Your task to perform on an android device: Show the shopping cart on amazon.com. Add jbl flip 4 to the cart on amazon.com, then select checkout. Image 0: 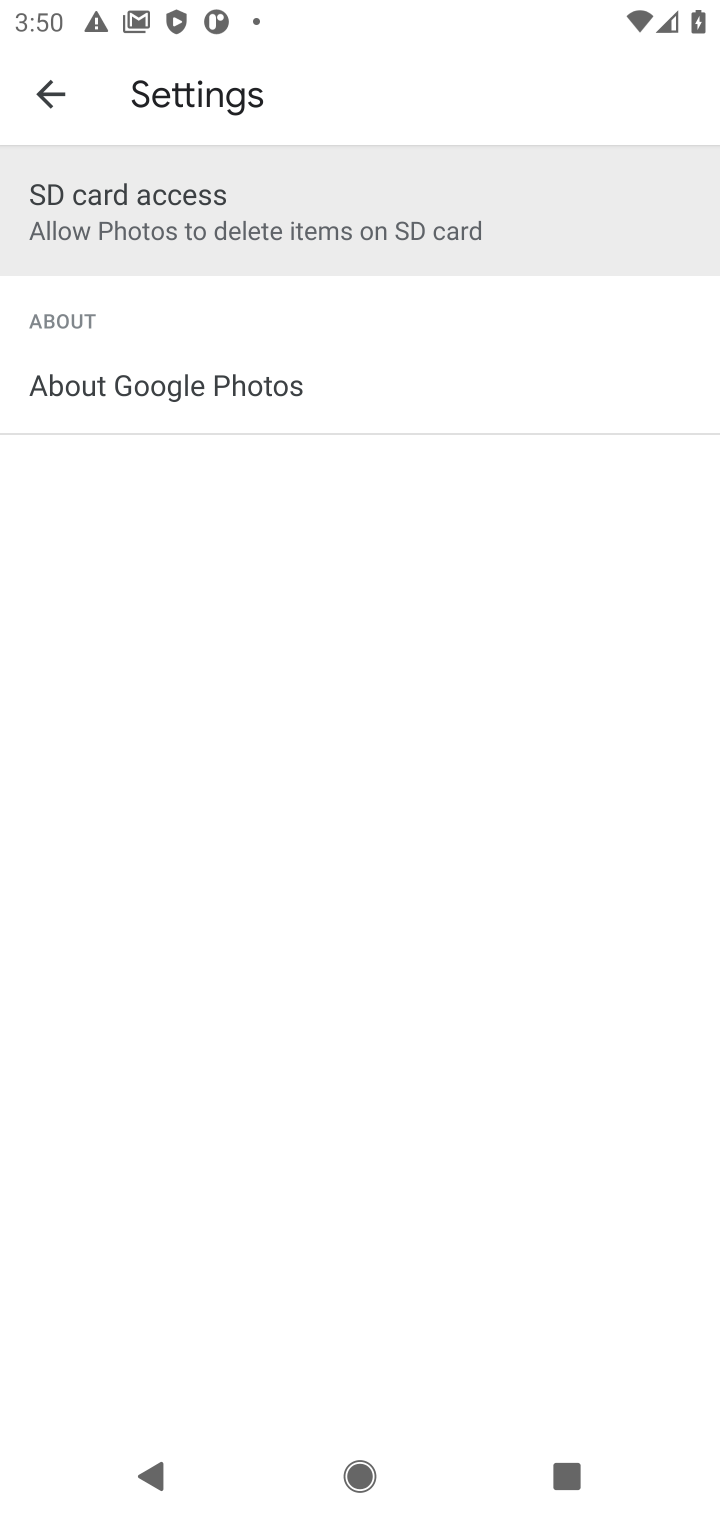
Step 0: press home button
Your task to perform on an android device: Show the shopping cart on amazon.com. Add jbl flip 4 to the cart on amazon.com, then select checkout. Image 1: 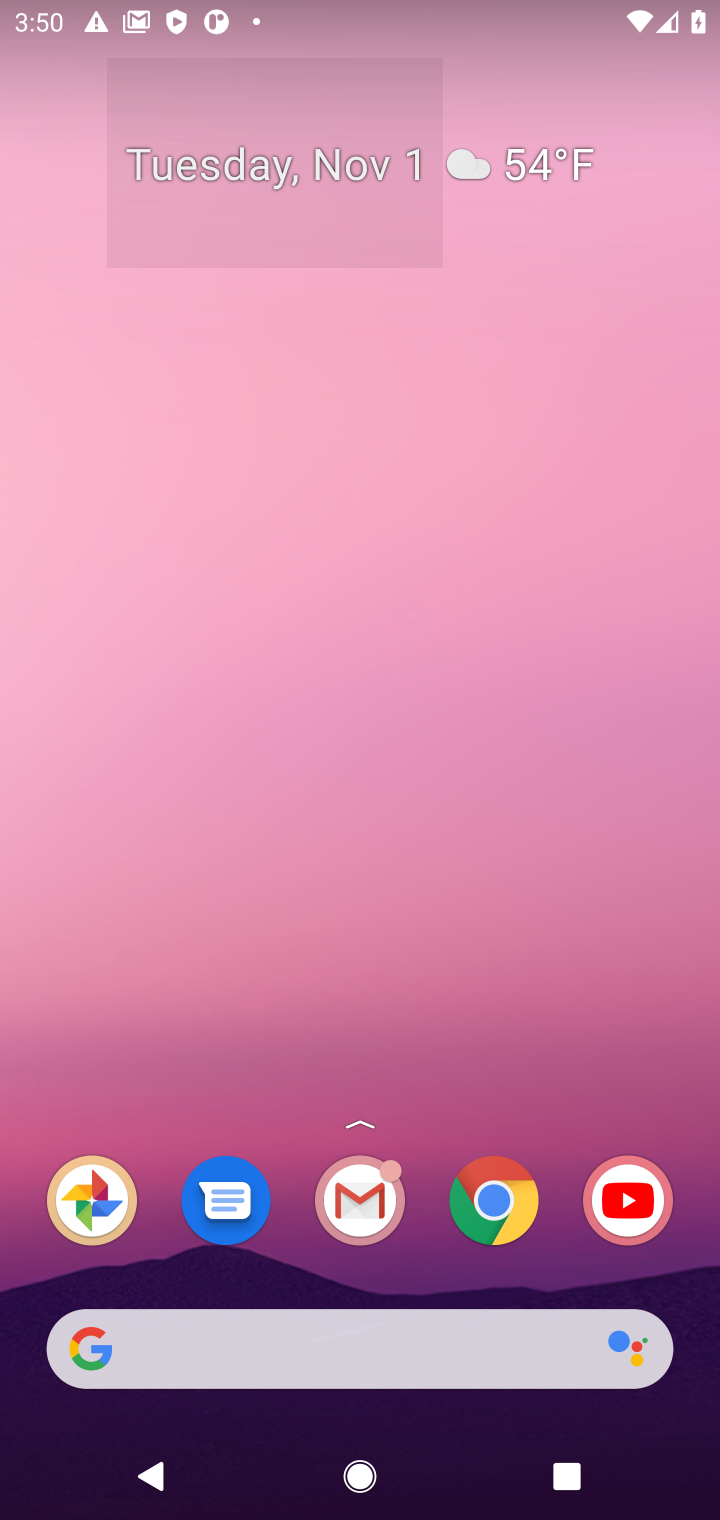
Step 1: click (94, 1352)
Your task to perform on an android device: Show the shopping cart on amazon.com. Add jbl flip 4 to the cart on amazon.com, then select checkout. Image 2: 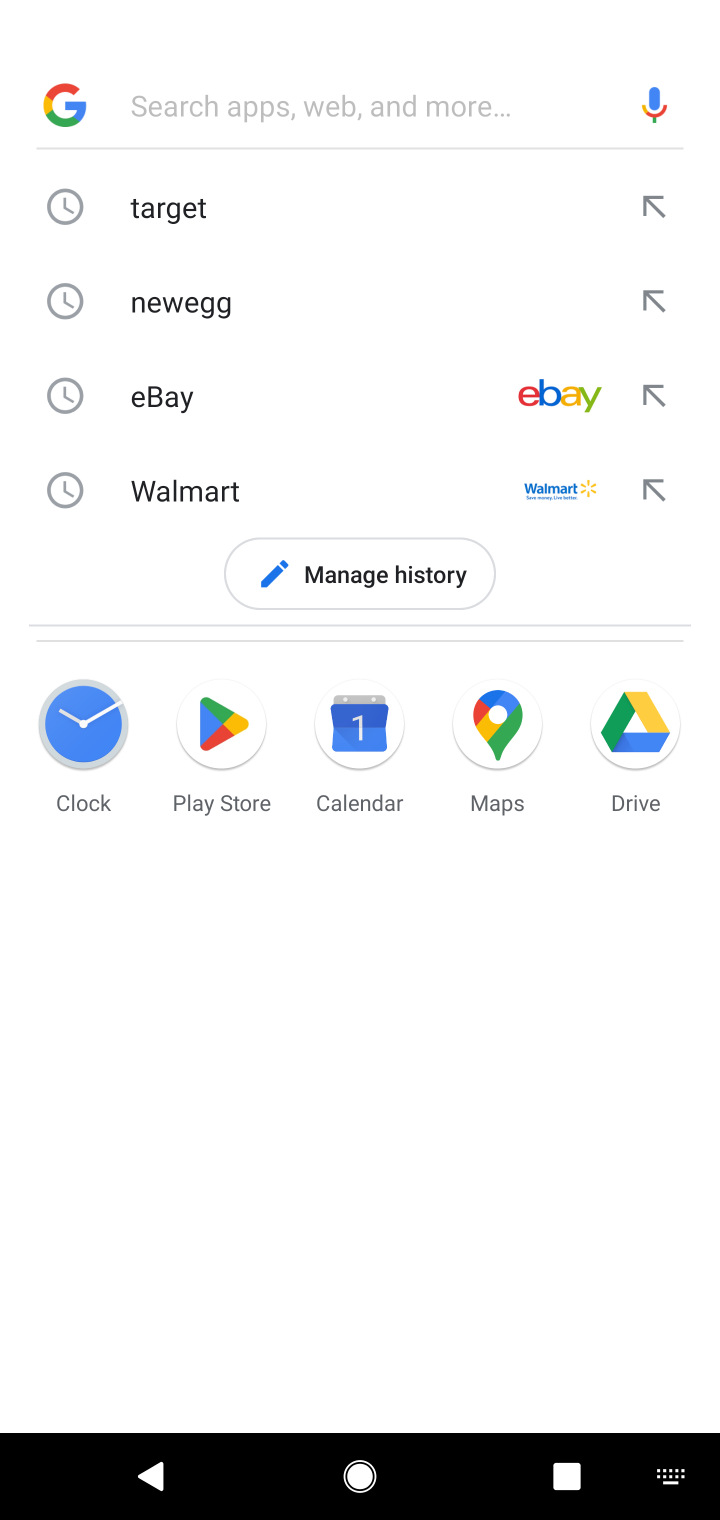
Step 2: click (423, 88)
Your task to perform on an android device: Show the shopping cart on amazon.com. Add jbl flip 4 to the cart on amazon.com, then select checkout. Image 3: 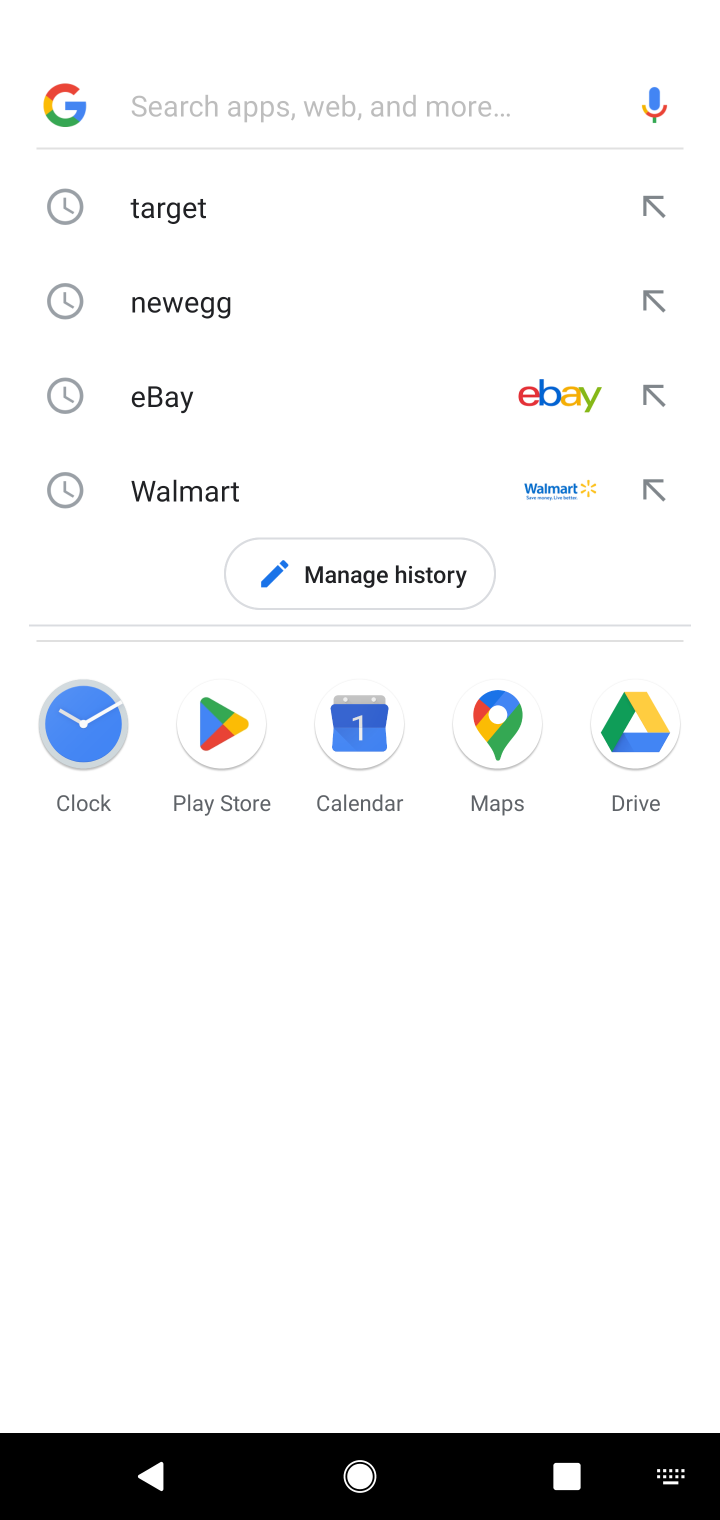
Step 3: type "amazon.com"
Your task to perform on an android device: Show the shopping cart on amazon.com. Add jbl flip 4 to the cart on amazon.com, then select checkout. Image 4: 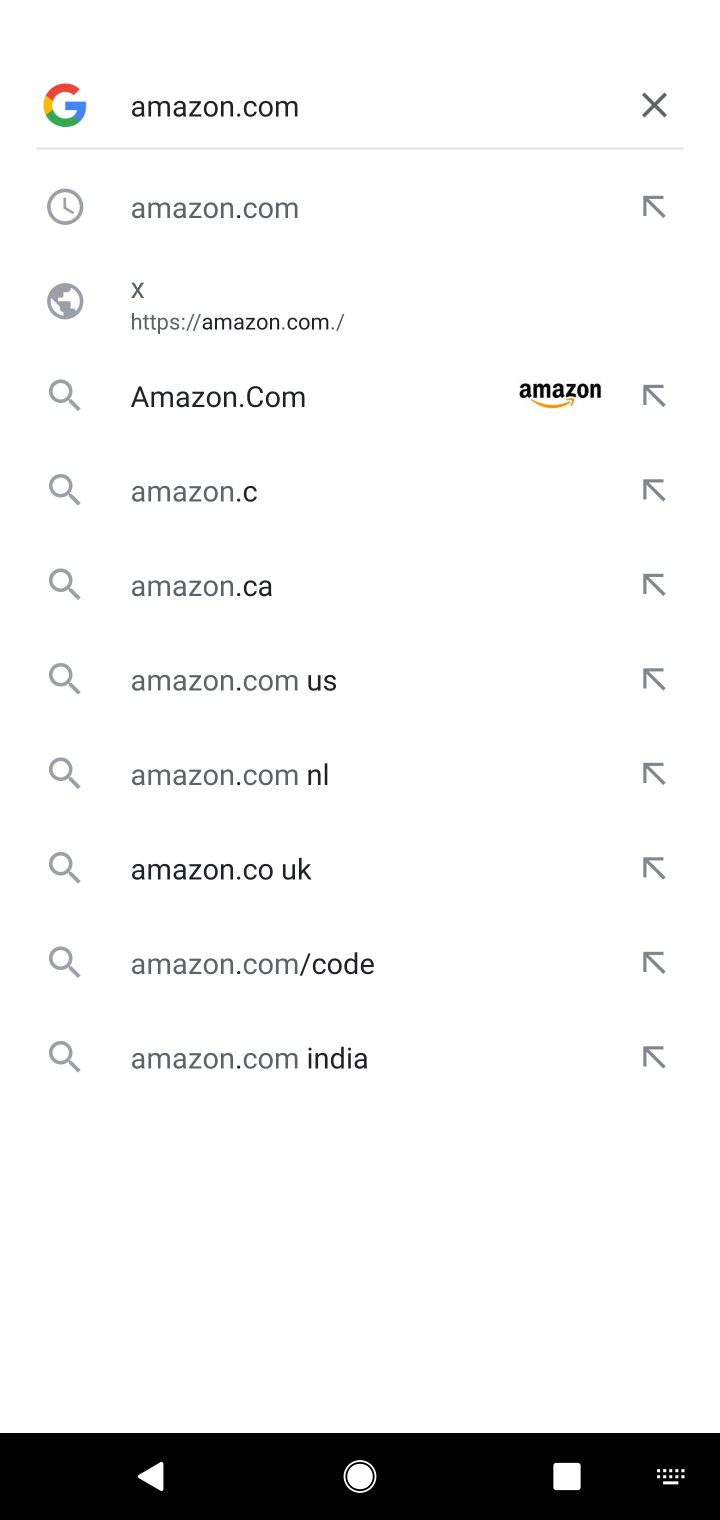
Step 4: click (249, 405)
Your task to perform on an android device: Show the shopping cart on amazon.com. Add jbl flip 4 to the cart on amazon.com, then select checkout. Image 5: 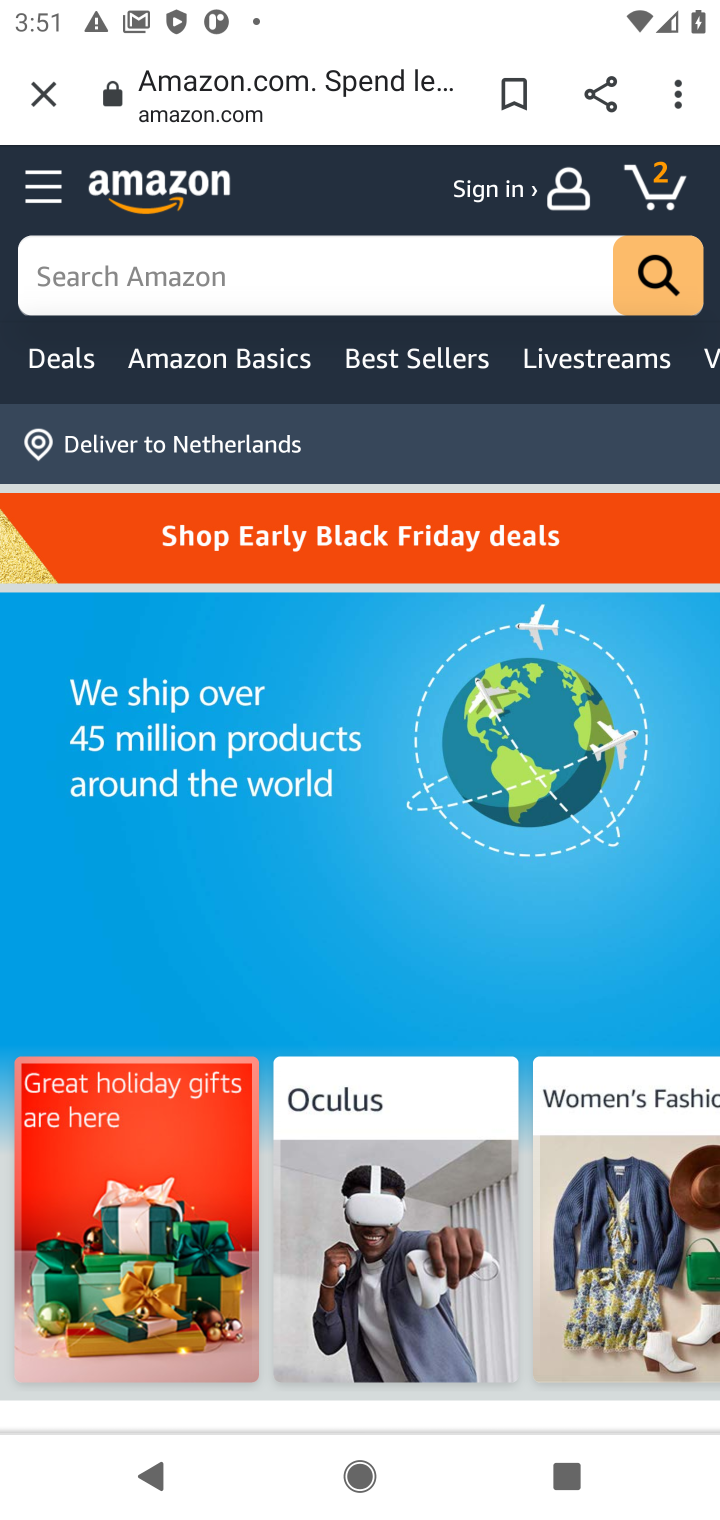
Step 5: click (312, 275)
Your task to perform on an android device: Show the shopping cart on amazon.com. Add jbl flip 4 to the cart on amazon.com, then select checkout. Image 6: 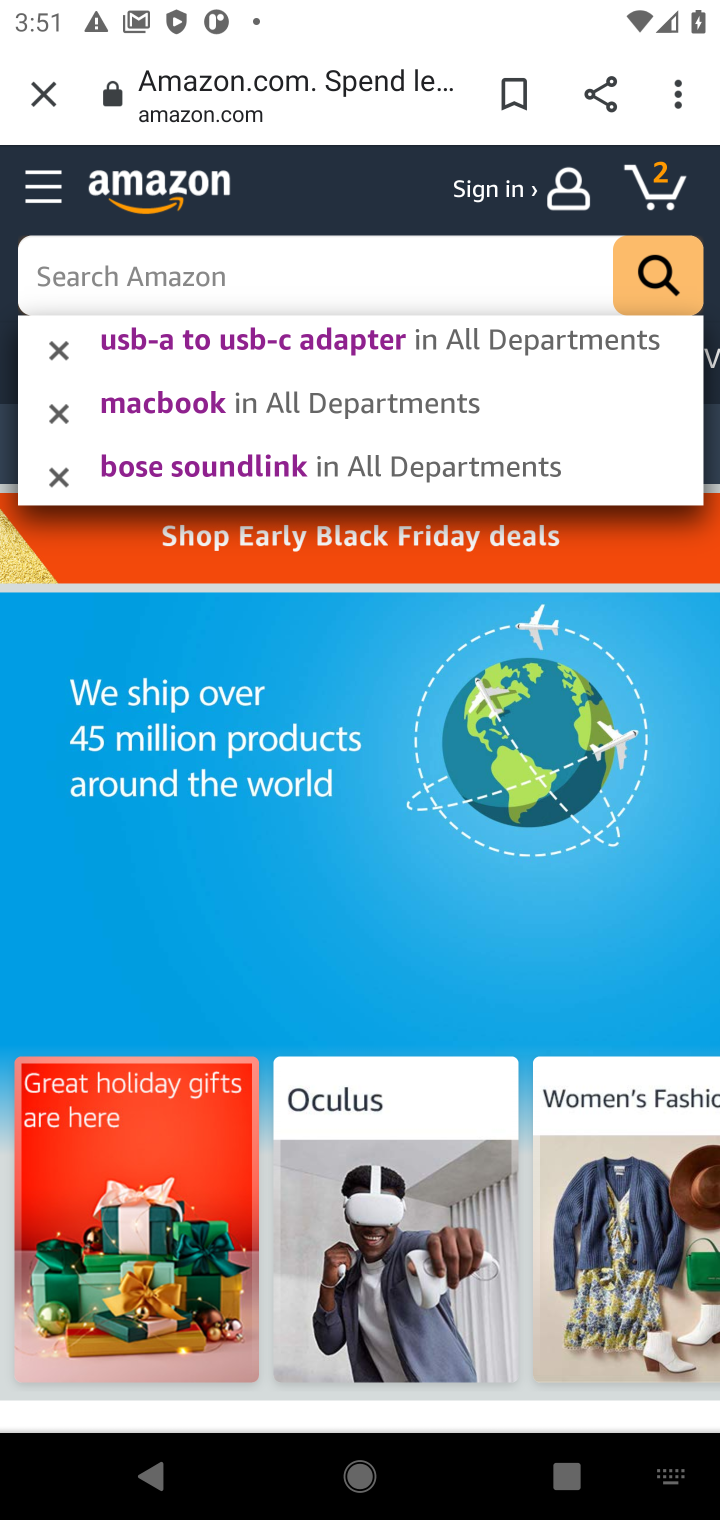
Step 6: type "jbl flip 4"
Your task to perform on an android device: Show the shopping cart on amazon.com. Add jbl flip 4 to the cart on amazon.com, then select checkout. Image 7: 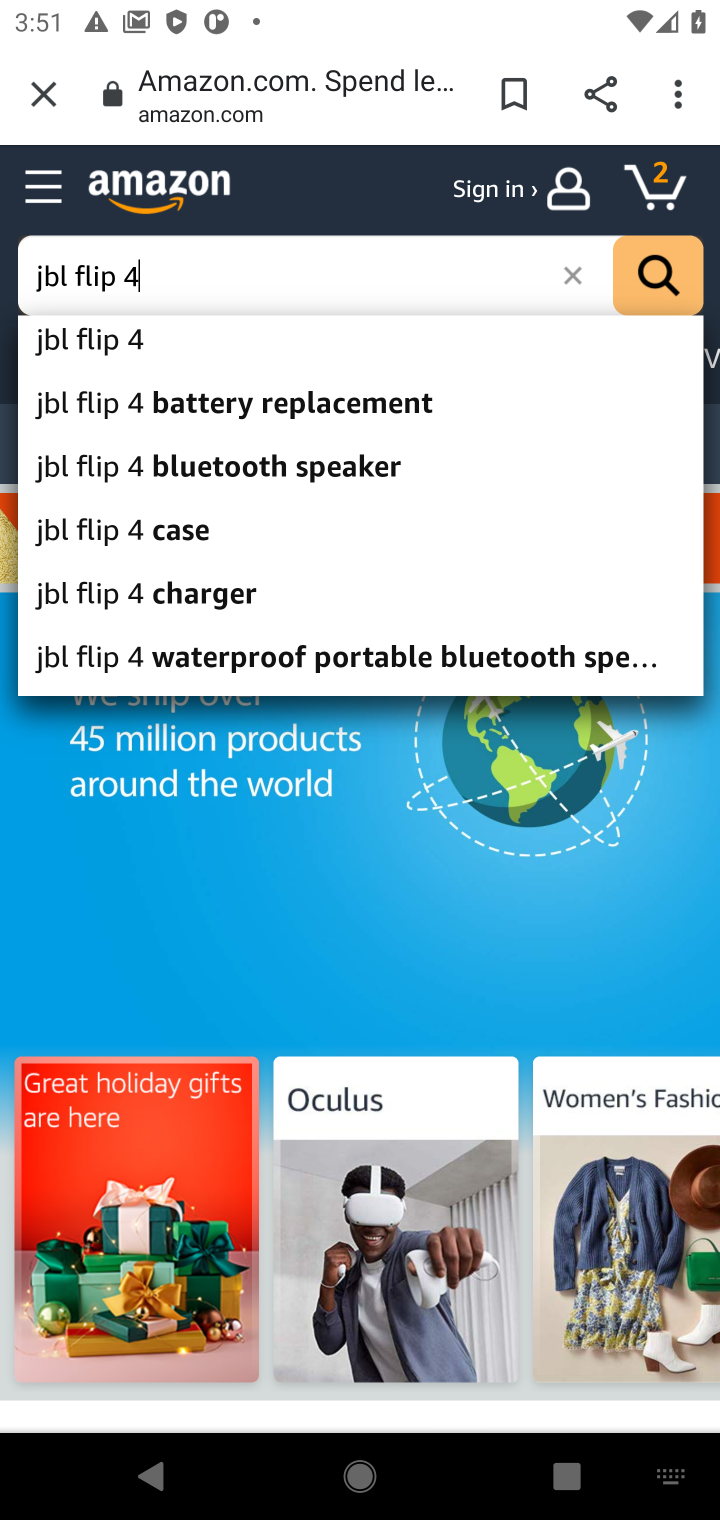
Step 7: click (118, 329)
Your task to perform on an android device: Show the shopping cart on amazon.com. Add jbl flip 4 to the cart on amazon.com, then select checkout. Image 8: 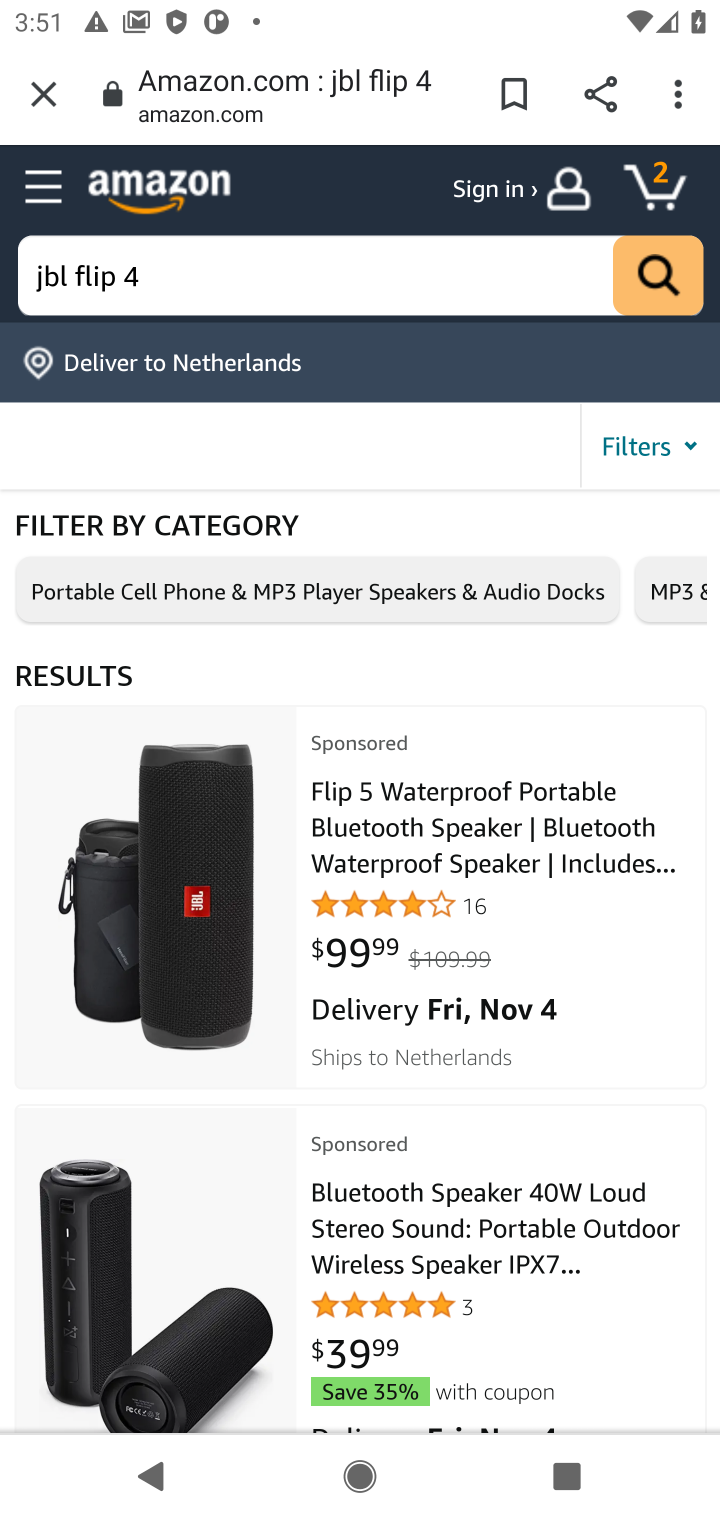
Step 8: click (216, 793)
Your task to perform on an android device: Show the shopping cart on amazon.com. Add jbl flip 4 to the cart on amazon.com, then select checkout. Image 9: 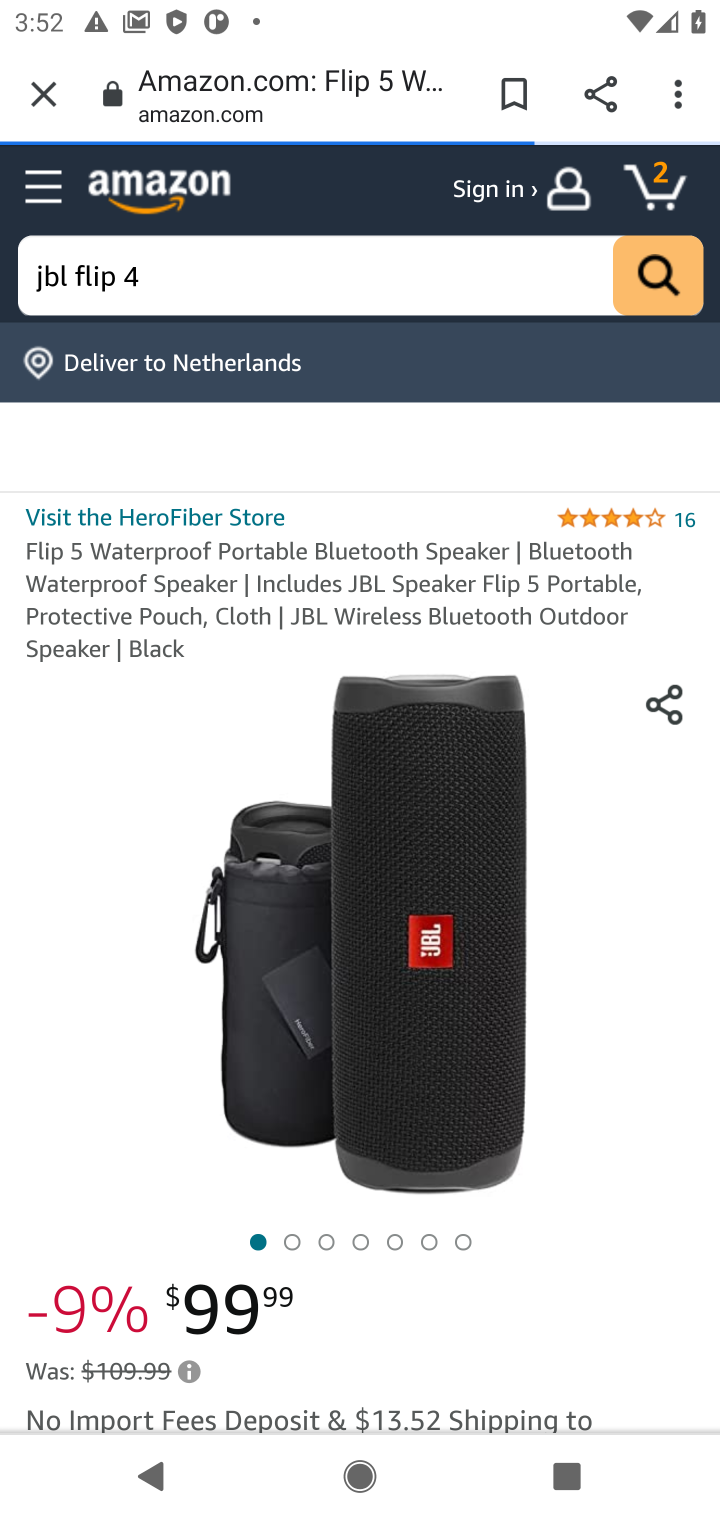
Step 9: click (363, 930)
Your task to perform on an android device: Show the shopping cart on amazon.com. Add jbl flip 4 to the cart on amazon.com, then select checkout. Image 10: 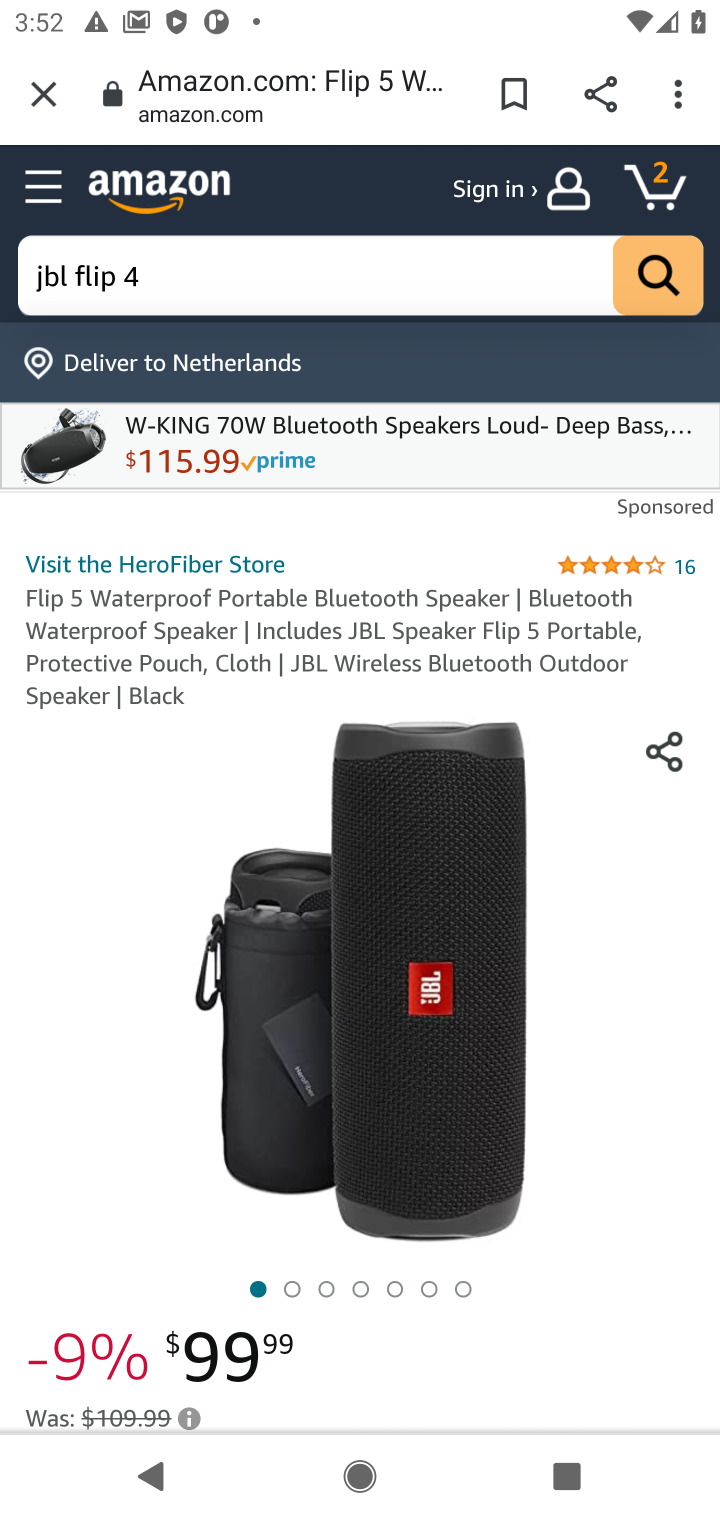
Step 10: drag from (400, 1184) to (383, 352)
Your task to perform on an android device: Show the shopping cart on amazon.com. Add jbl flip 4 to the cart on amazon.com, then select checkout. Image 11: 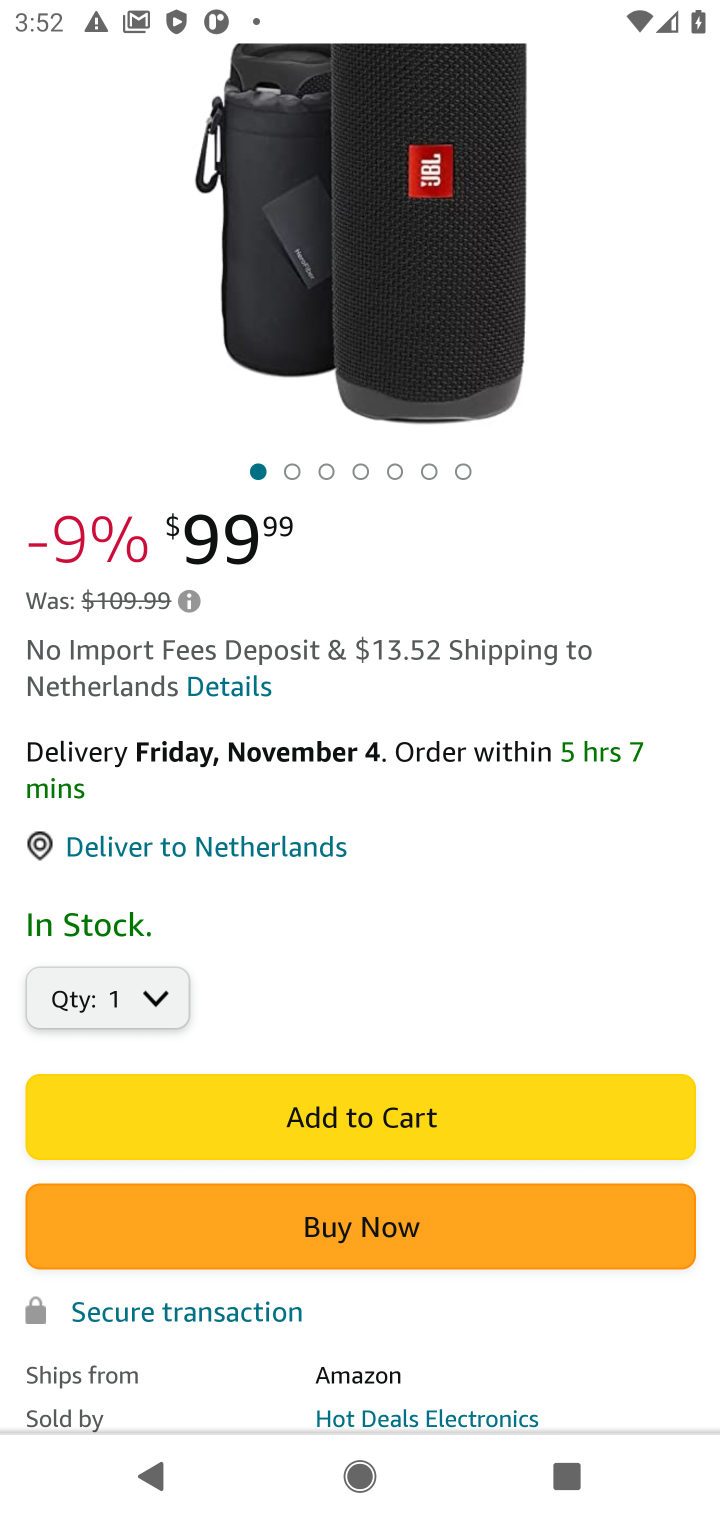
Step 11: click (342, 1126)
Your task to perform on an android device: Show the shopping cart on amazon.com. Add jbl flip 4 to the cart on amazon.com, then select checkout. Image 12: 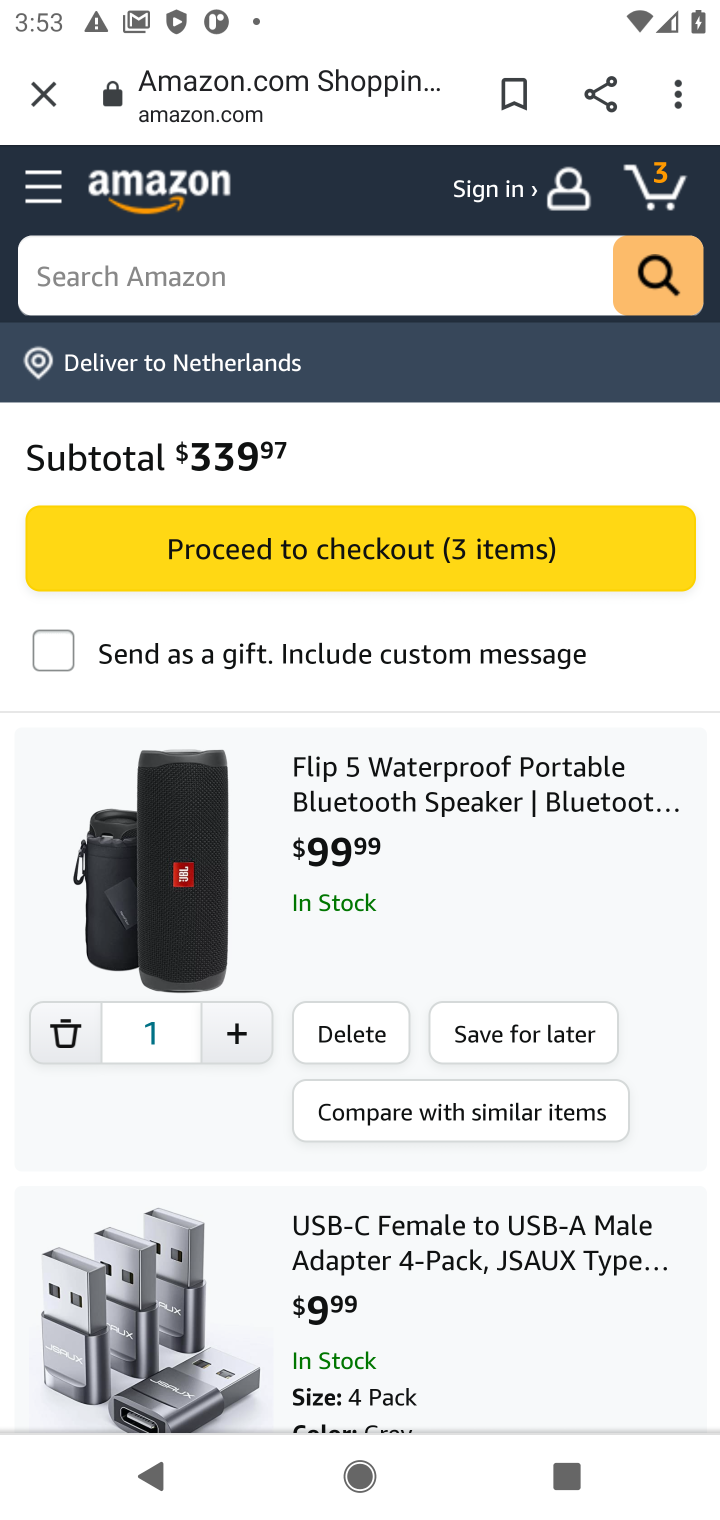
Step 12: click (299, 540)
Your task to perform on an android device: Show the shopping cart on amazon.com. Add jbl flip 4 to the cart on amazon.com, then select checkout. Image 13: 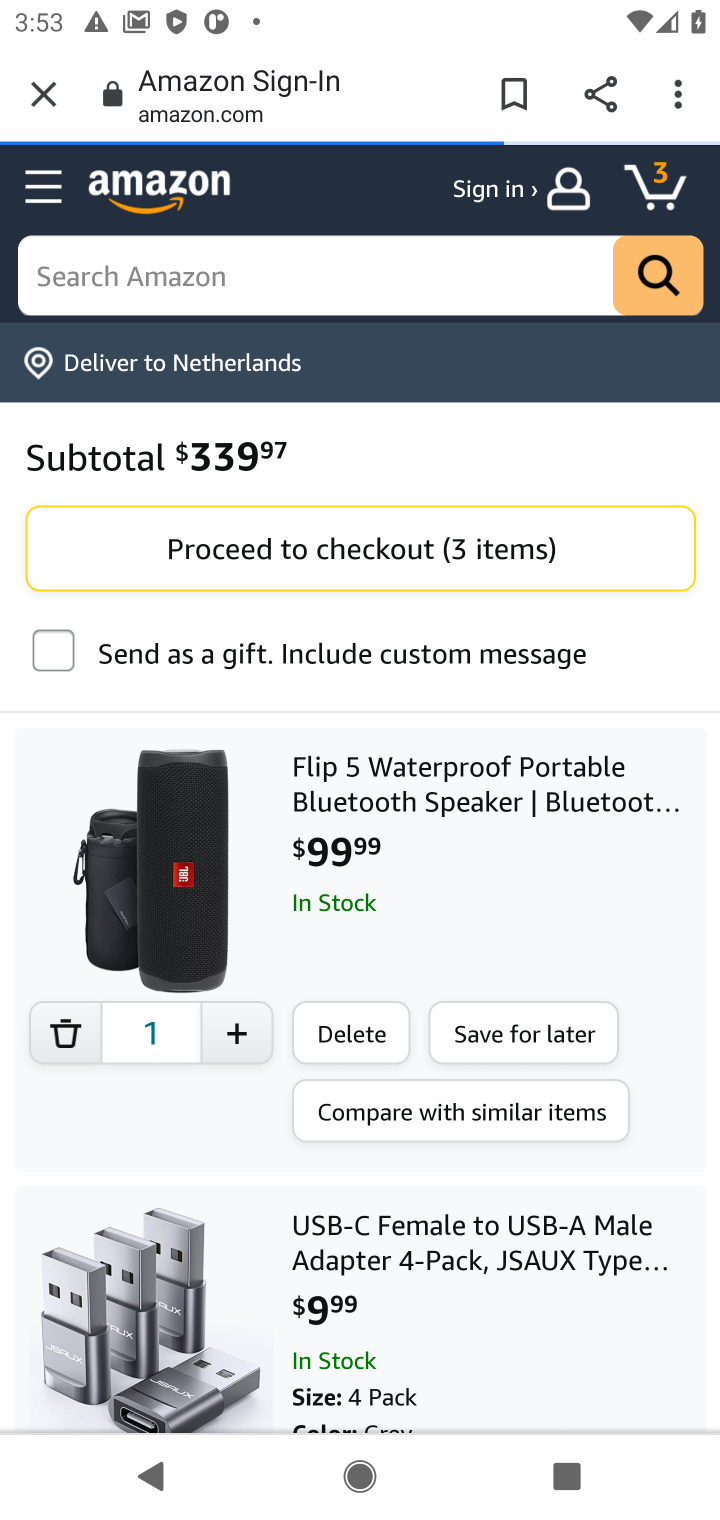
Step 13: task complete